Your task to perform on an android device: delete the emails in spam in the gmail app Image 0: 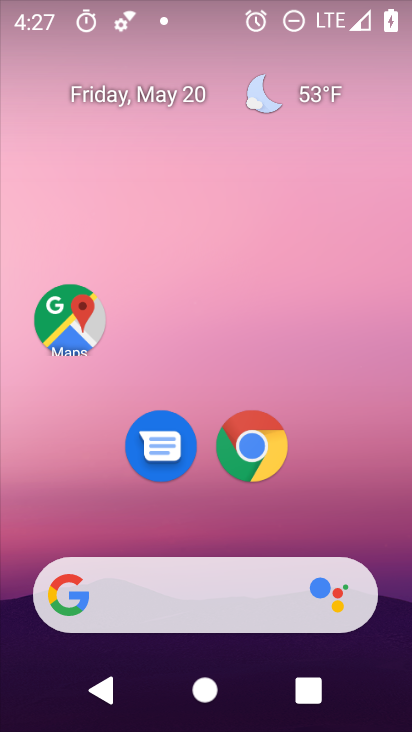
Step 0: click (390, 53)
Your task to perform on an android device: delete the emails in spam in the gmail app Image 1: 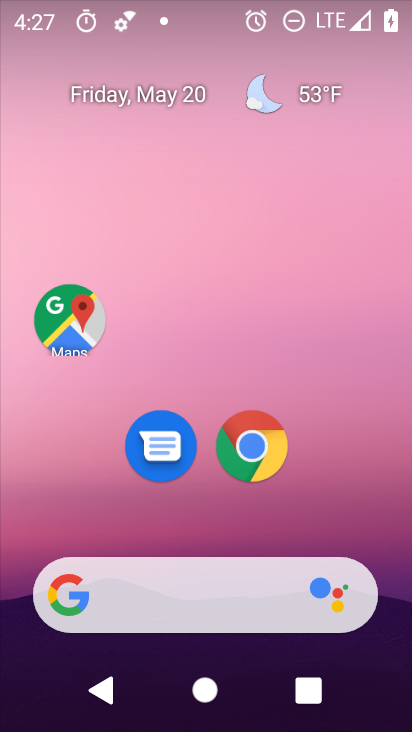
Step 1: click (373, 32)
Your task to perform on an android device: delete the emails in spam in the gmail app Image 2: 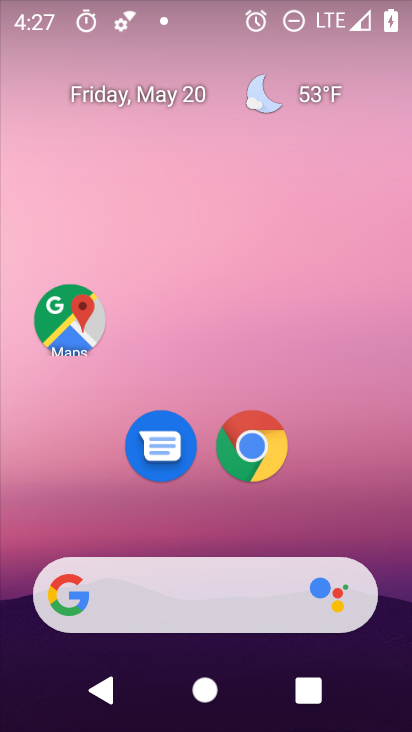
Step 2: click (392, 65)
Your task to perform on an android device: delete the emails in spam in the gmail app Image 3: 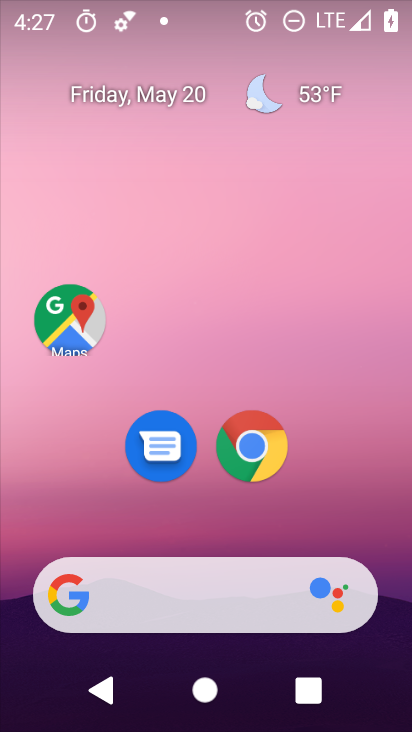
Step 3: drag from (371, 516) to (378, 50)
Your task to perform on an android device: delete the emails in spam in the gmail app Image 4: 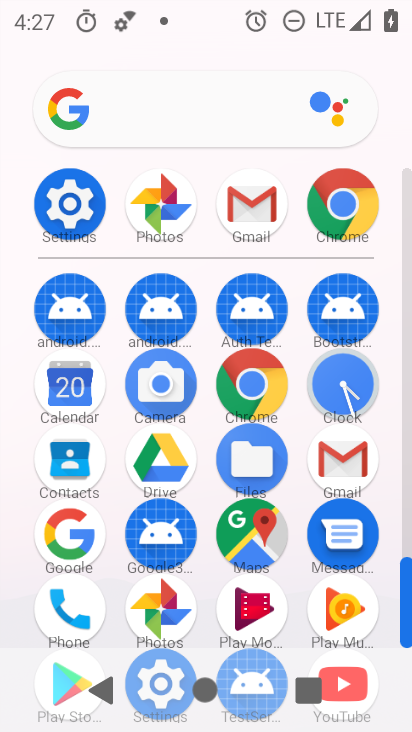
Step 4: click (265, 205)
Your task to perform on an android device: delete the emails in spam in the gmail app Image 5: 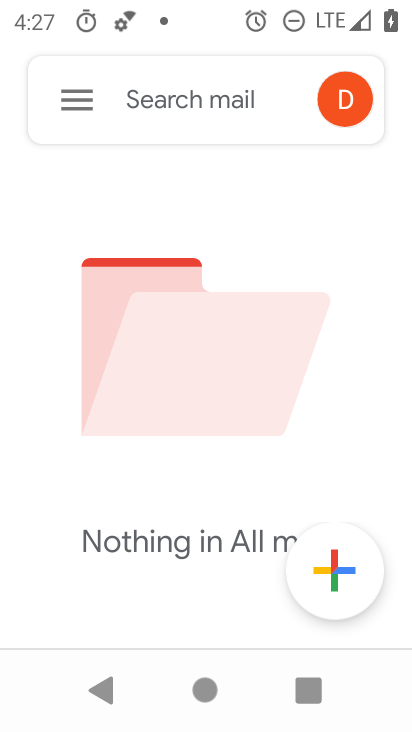
Step 5: click (80, 102)
Your task to perform on an android device: delete the emails in spam in the gmail app Image 6: 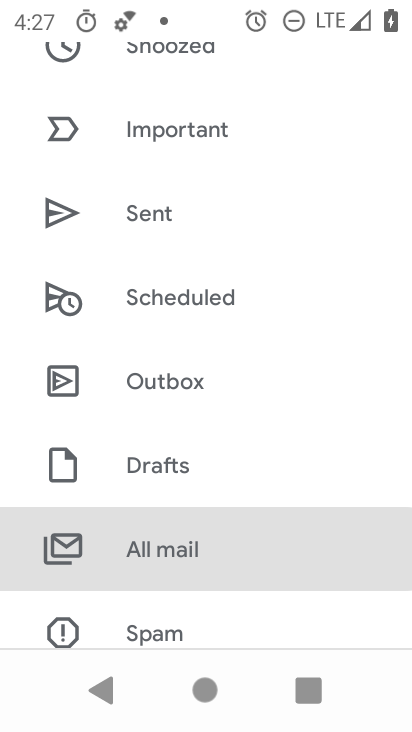
Step 6: click (108, 717)
Your task to perform on an android device: delete the emails in spam in the gmail app Image 7: 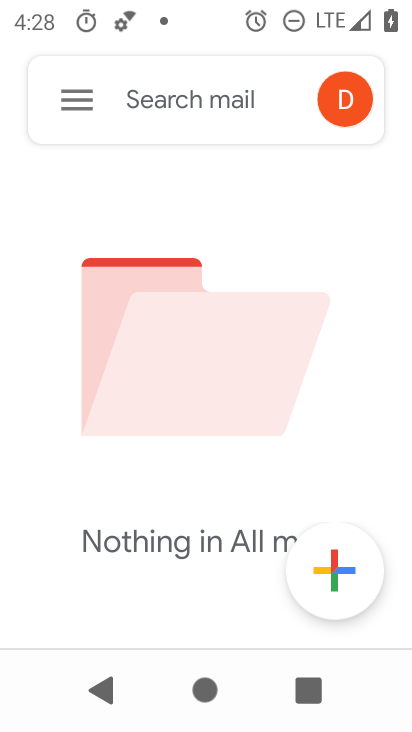
Step 7: click (75, 102)
Your task to perform on an android device: delete the emails in spam in the gmail app Image 8: 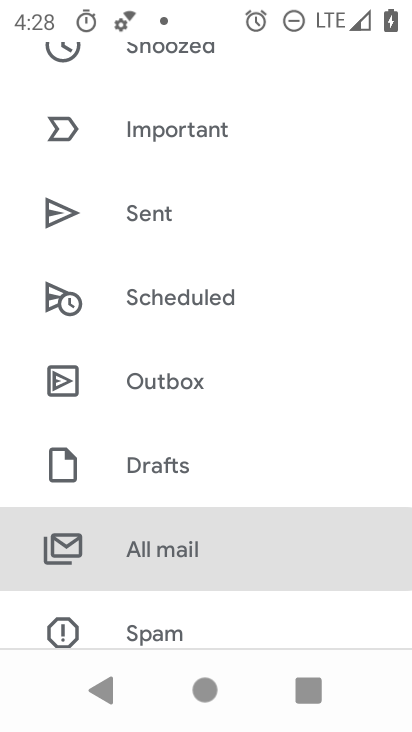
Step 8: drag from (142, 632) to (184, 176)
Your task to perform on an android device: delete the emails in spam in the gmail app Image 9: 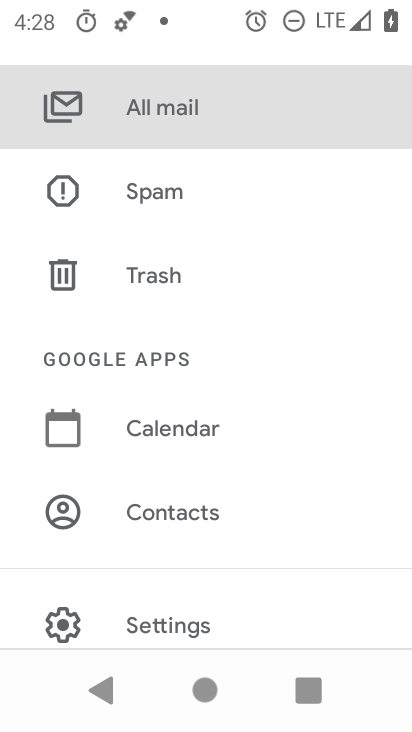
Step 9: click (175, 205)
Your task to perform on an android device: delete the emails in spam in the gmail app Image 10: 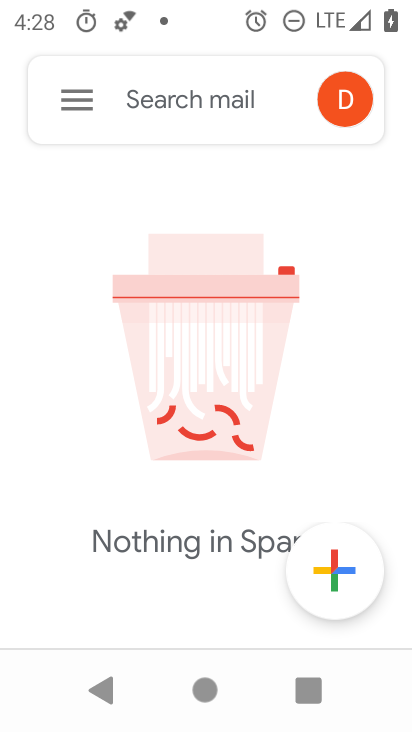
Step 10: task complete